Your task to perform on an android device: toggle data saver in the chrome app Image 0: 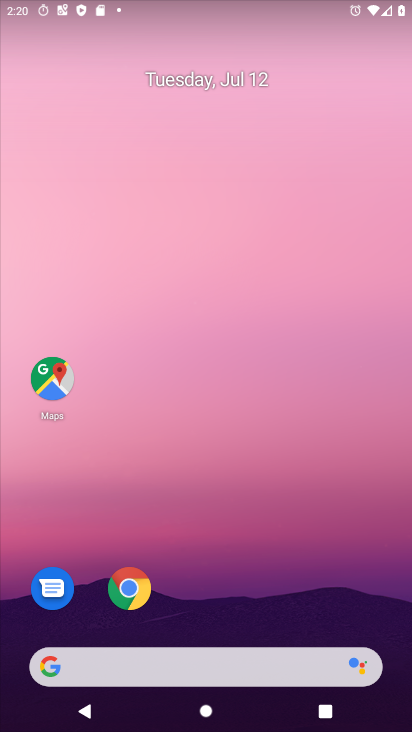
Step 0: click (236, 26)
Your task to perform on an android device: toggle data saver in the chrome app Image 1: 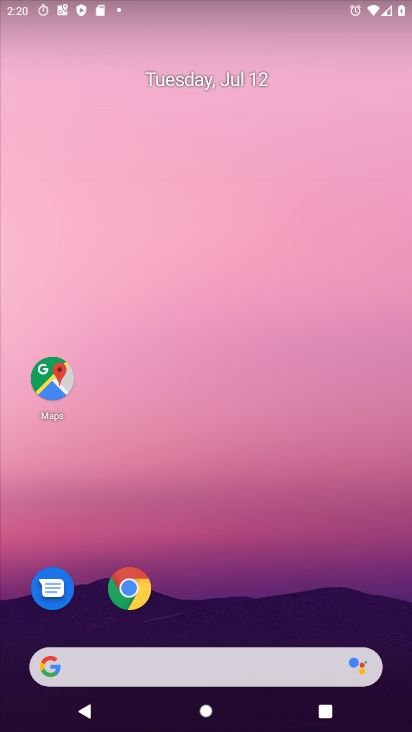
Step 1: drag from (210, 570) to (267, 57)
Your task to perform on an android device: toggle data saver in the chrome app Image 2: 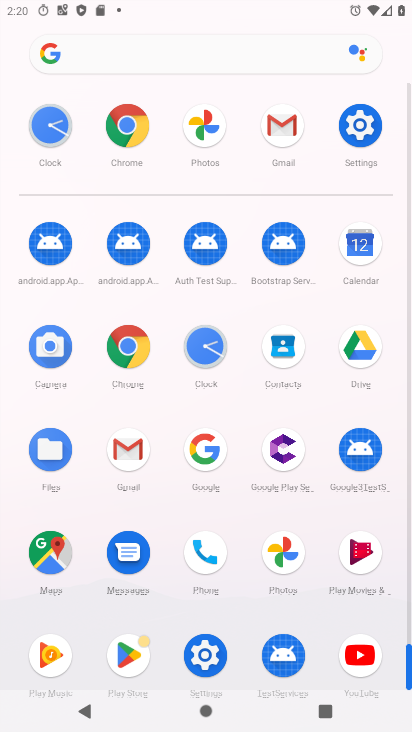
Step 2: click (132, 348)
Your task to perform on an android device: toggle data saver in the chrome app Image 3: 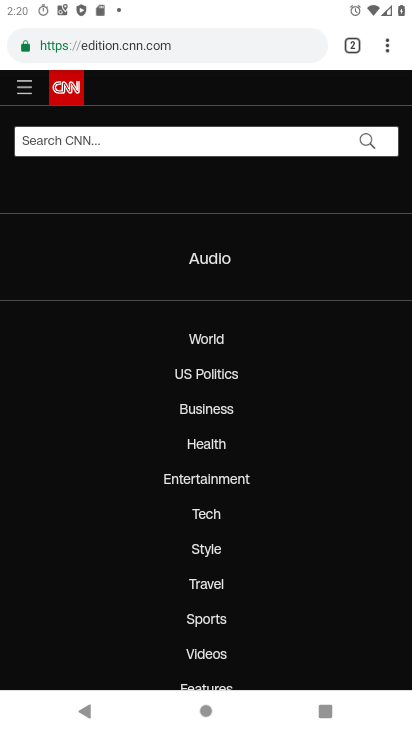
Step 3: drag from (211, 234) to (329, 608)
Your task to perform on an android device: toggle data saver in the chrome app Image 4: 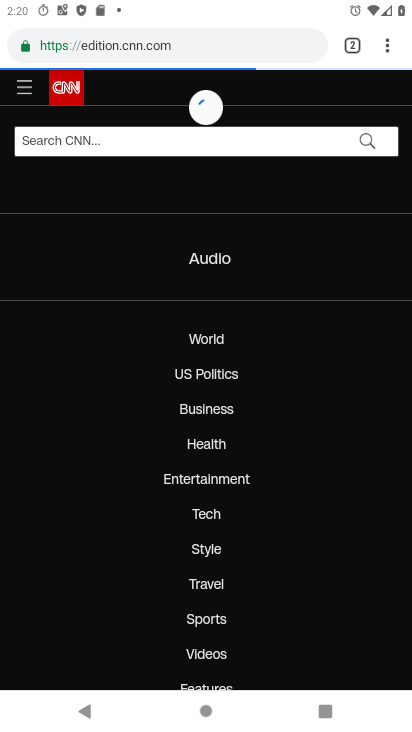
Step 4: drag from (249, 318) to (337, 29)
Your task to perform on an android device: toggle data saver in the chrome app Image 5: 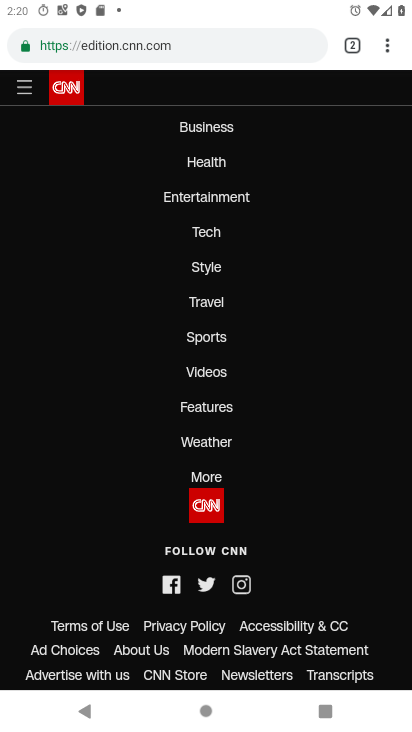
Step 5: drag from (214, 431) to (306, 721)
Your task to perform on an android device: toggle data saver in the chrome app Image 6: 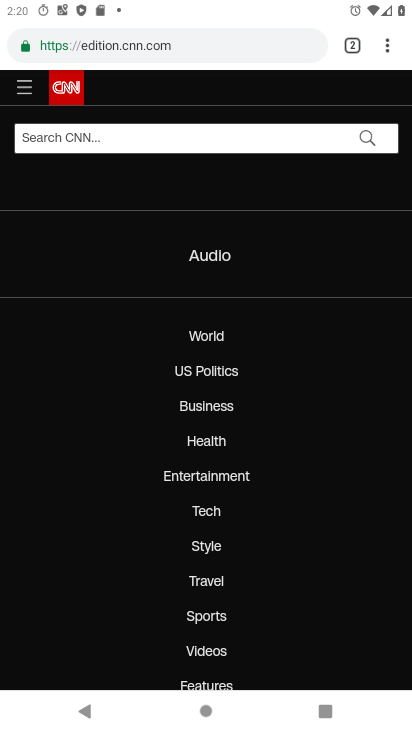
Step 6: click (386, 38)
Your task to perform on an android device: toggle data saver in the chrome app Image 7: 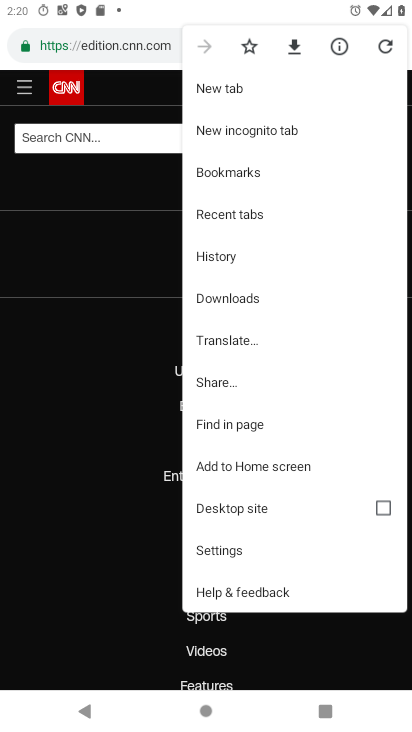
Step 7: click (226, 550)
Your task to perform on an android device: toggle data saver in the chrome app Image 8: 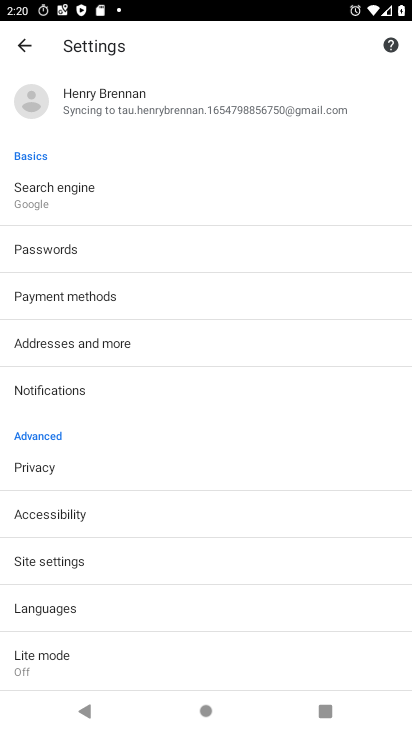
Step 8: drag from (146, 575) to (214, 264)
Your task to perform on an android device: toggle data saver in the chrome app Image 9: 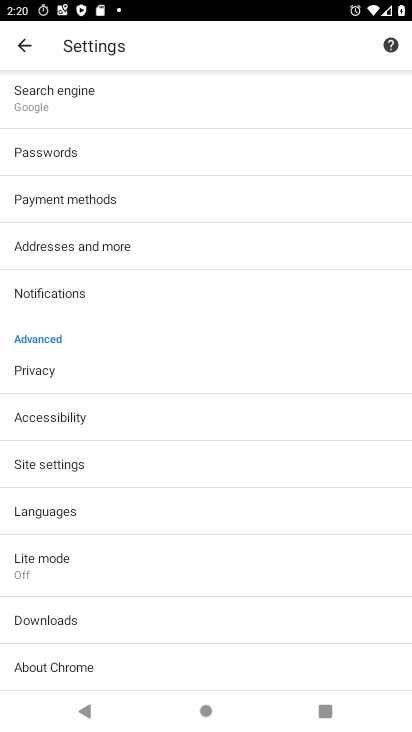
Step 9: click (91, 463)
Your task to perform on an android device: toggle data saver in the chrome app Image 10: 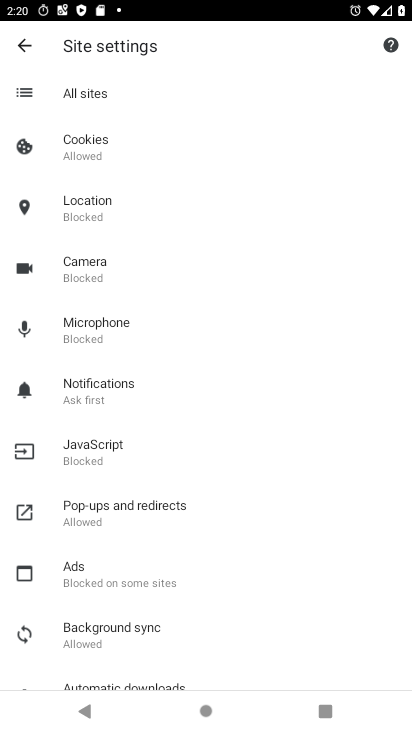
Step 10: click (19, 47)
Your task to perform on an android device: toggle data saver in the chrome app Image 11: 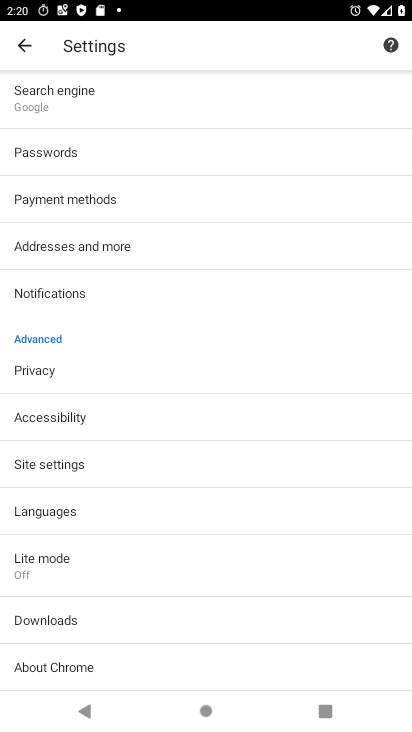
Step 11: click (76, 564)
Your task to perform on an android device: toggle data saver in the chrome app Image 12: 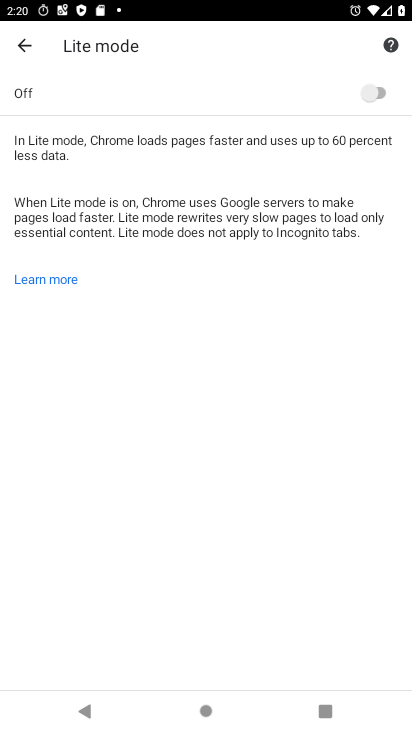
Step 12: click (365, 95)
Your task to perform on an android device: toggle data saver in the chrome app Image 13: 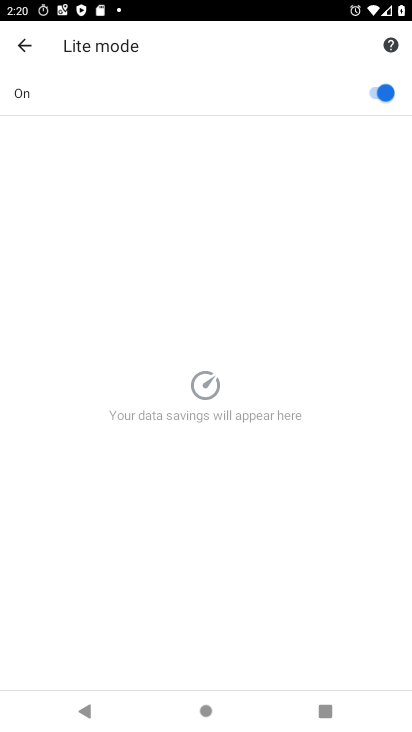
Step 13: task complete